Your task to perform on an android device: turn off javascript in the chrome app Image 0: 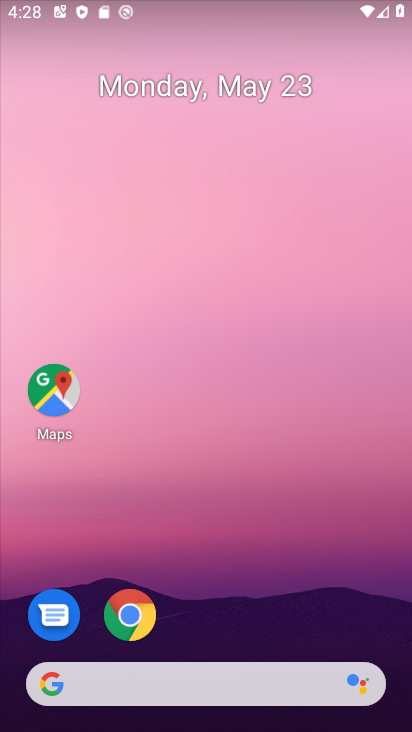
Step 0: click (130, 620)
Your task to perform on an android device: turn off javascript in the chrome app Image 1: 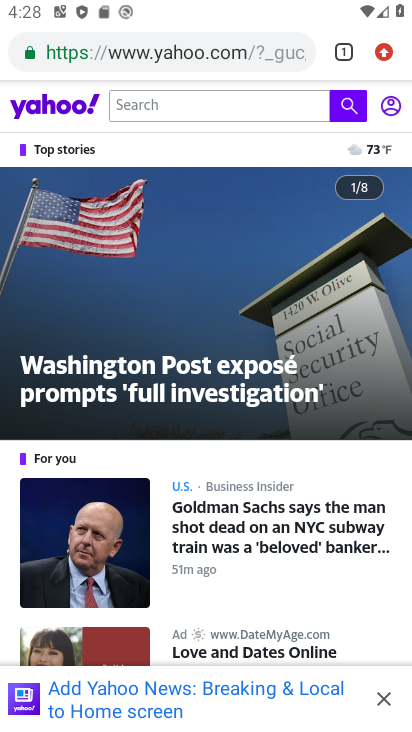
Step 1: drag from (386, 45) to (209, 643)
Your task to perform on an android device: turn off javascript in the chrome app Image 2: 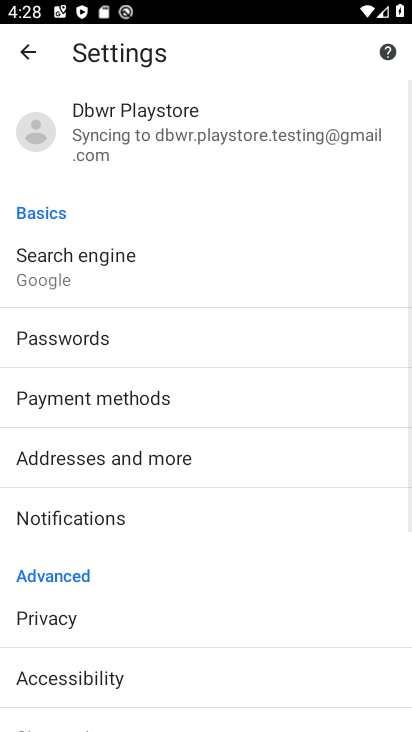
Step 2: click (186, 217)
Your task to perform on an android device: turn off javascript in the chrome app Image 3: 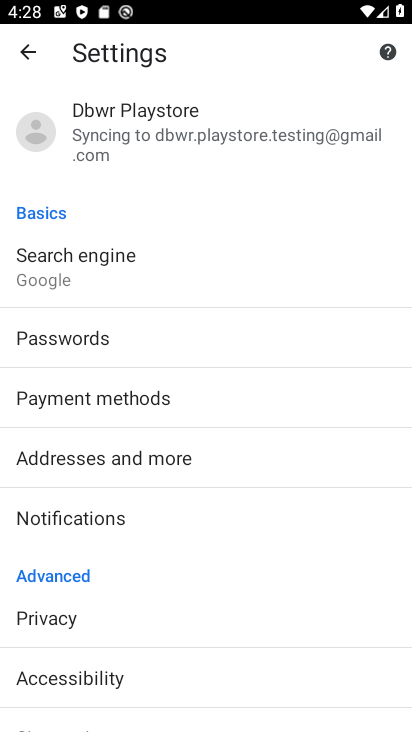
Step 3: drag from (169, 642) to (193, 177)
Your task to perform on an android device: turn off javascript in the chrome app Image 4: 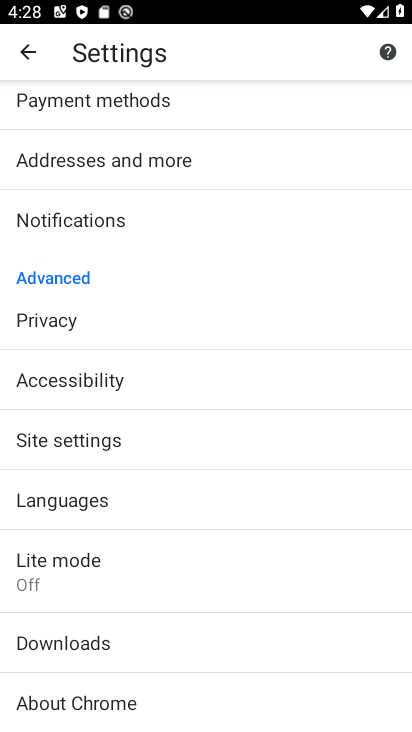
Step 4: click (70, 442)
Your task to perform on an android device: turn off javascript in the chrome app Image 5: 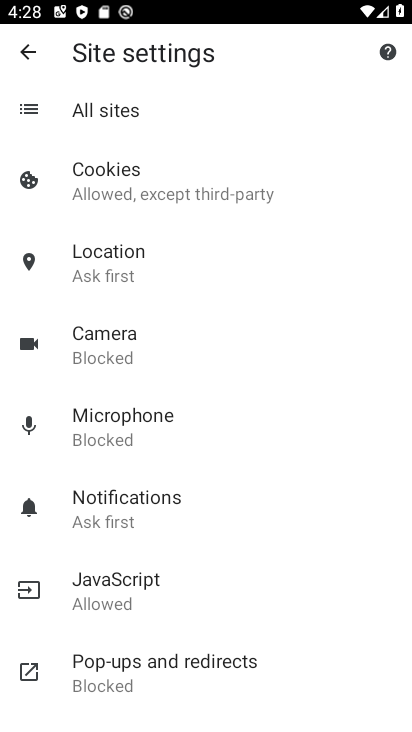
Step 5: click (126, 583)
Your task to perform on an android device: turn off javascript in the chrome app Image 6: 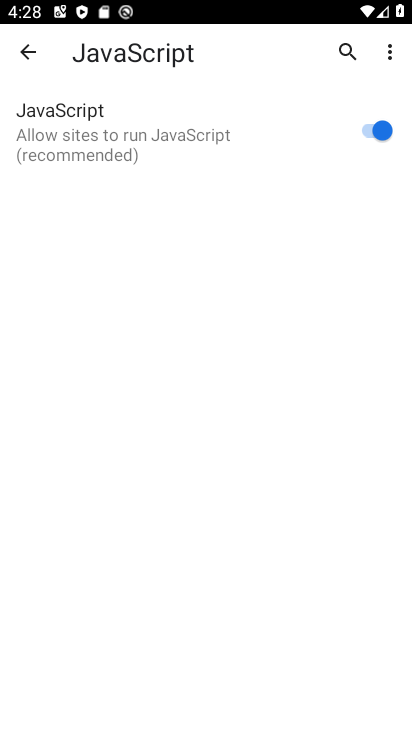
Step 6: click (378, 122)
Your task to perform on an android device: turn off javascript in the chrome app Image 7: 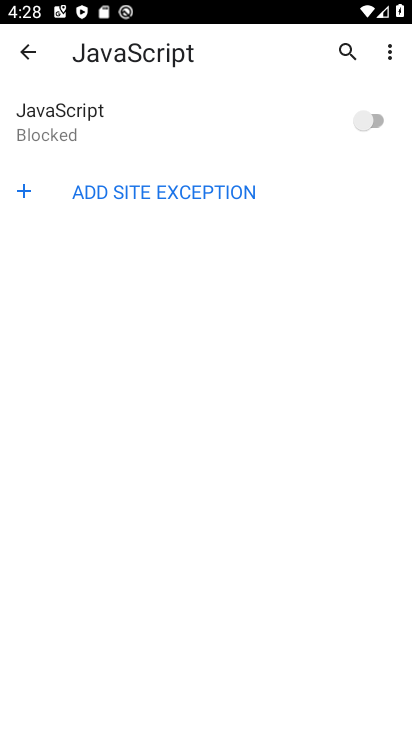
Step 7: task complete